Your task to perform on an android device: change the clock display to show seconds Image 0: 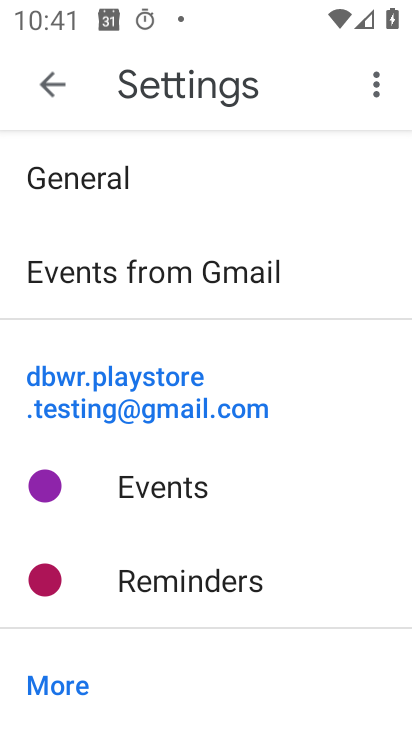
Step 0: press home button
Your task to perform on an android device: change the clock display to show seconds Image 1: 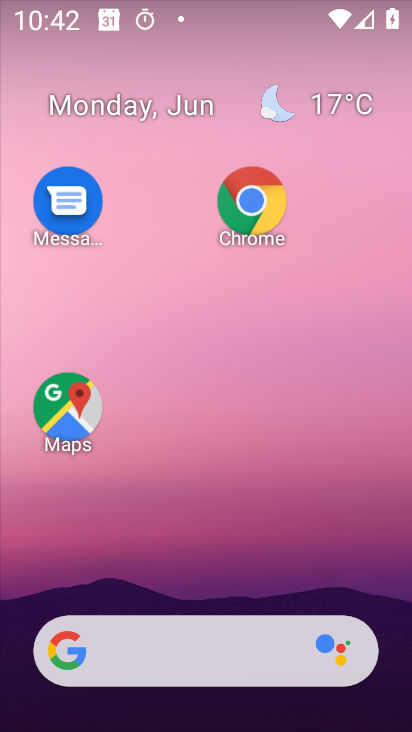
Step 1: drag from (214, 578) to (99, 69)
Your task to perform on an android device: change the clock display to show seconds Image 2: 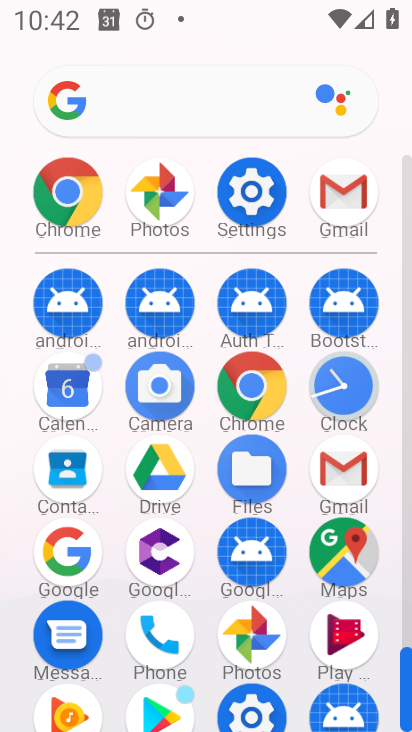
Step 2: click (355, 409)
Your task to perform on an android device: change the clock display to show seconds Image 3: 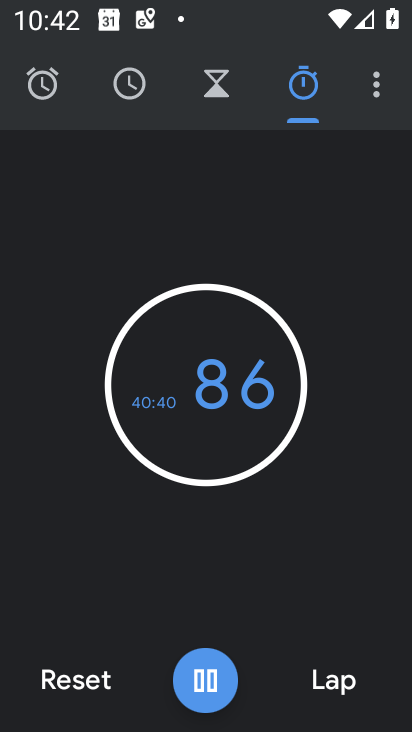
Step 3: click (377, 95)
Your task to perform on an android device: change the clock display to show seconds Image 4: 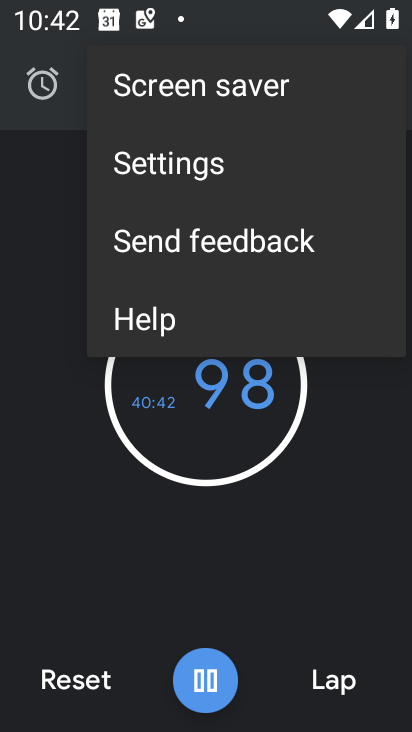
Step 4: click (234, 162)
Your task to perform on an android device: change the clock display to show seconds Image 5: 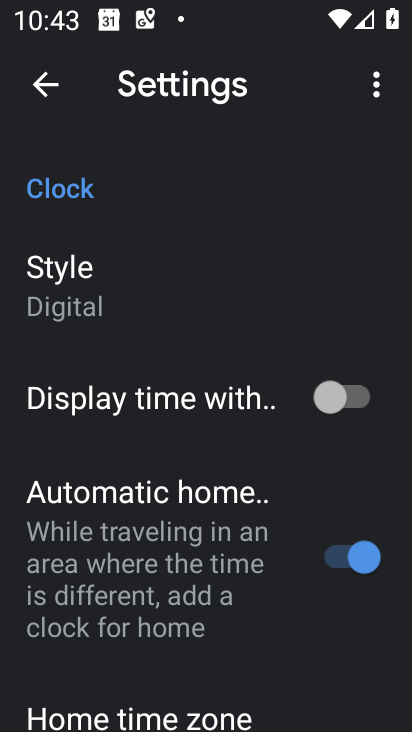
Step 5: click (328, 388)
Your task to perform on an android device: change the clock display to show seconds Image 6: 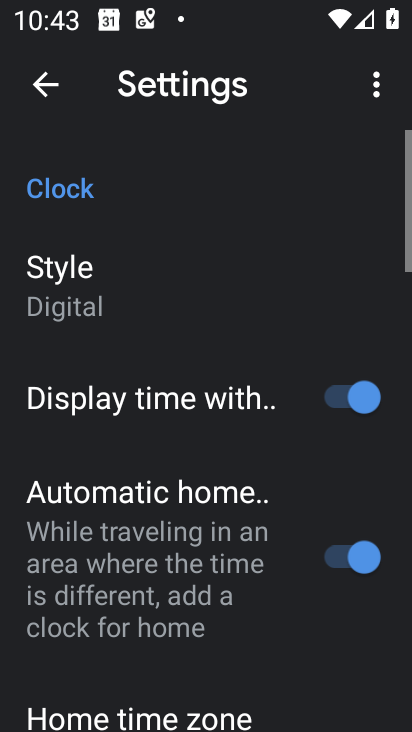
Step 6: task complete